Your task to perform on an android device: Set the phone to "Do not disturb". Image 0: 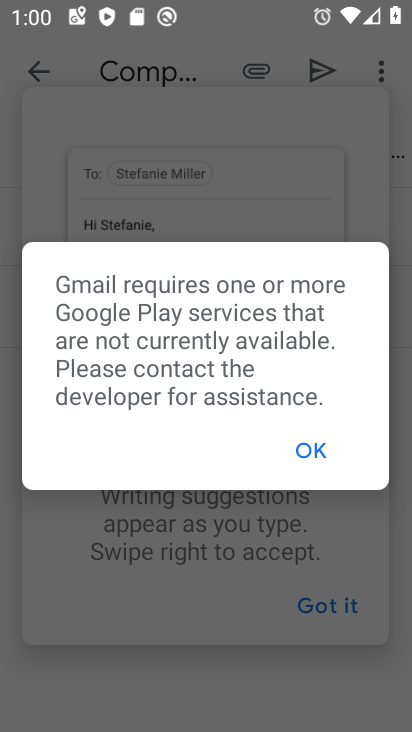
Step 0: press home button
Your task to perform on an android device: Set the phone to "Do not disturb". Image 1: 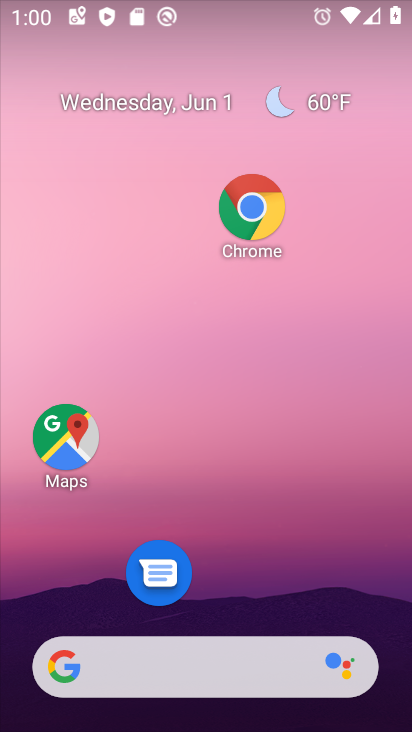
Step 1: drag from (217, 601) to (172, 153)
Your task to perform on an android device: Set the phone to "Do not disturb". Image 2: 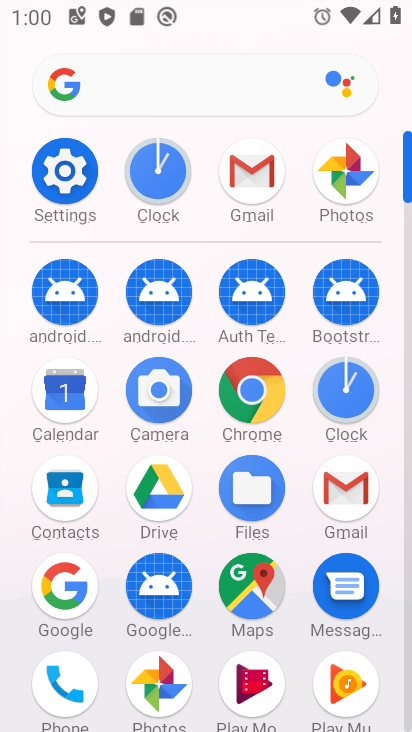
Step 2: click (83, 175)
Your task to perform on an android device: Set the phone to "Do not disturb". Image 3: 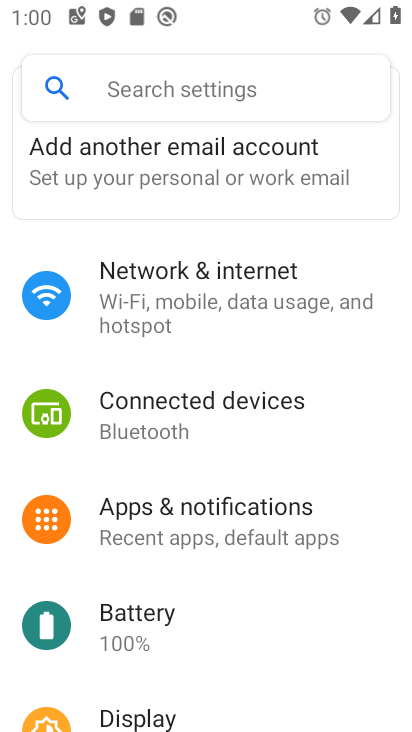
Step 3: drag from (198, 597) to (234, 247)
Your task to perform on an android device: Set the phone to "Do not disturb". Image 4: 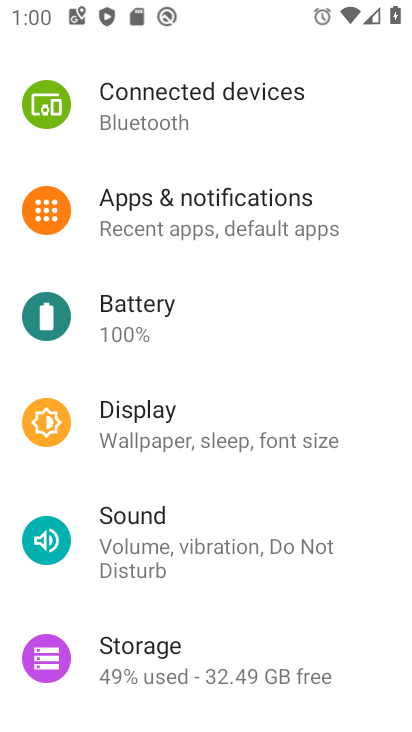
Step 4: click (207, 514)
Your task to perform on an android device: Set the phone to "Do not disturb". Image 5: 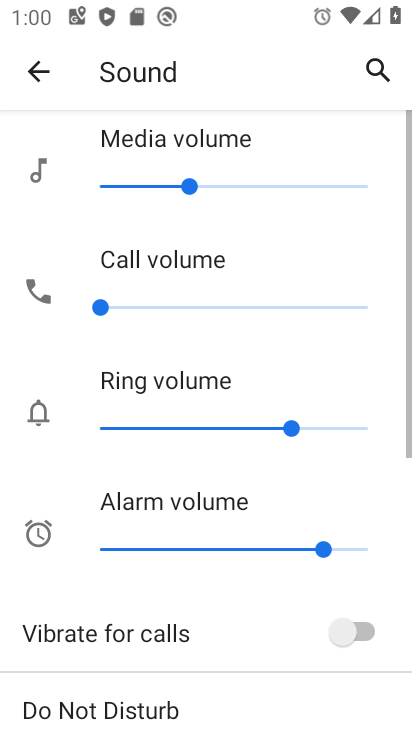
Step 5: drag from (222, 610) to (211, 221)
Your task to perform on an android device: Set the phone to "Do not disturb". Image 6: 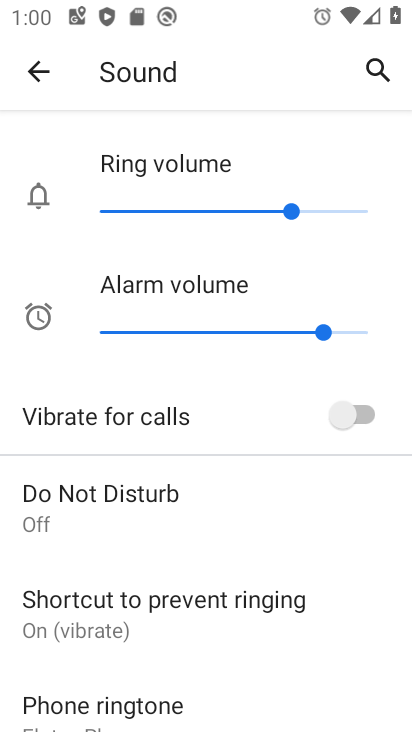
Step 6: click (159, 467)
Your task to perform on an android device: Set the phone to "Do not disturb". Image 7: 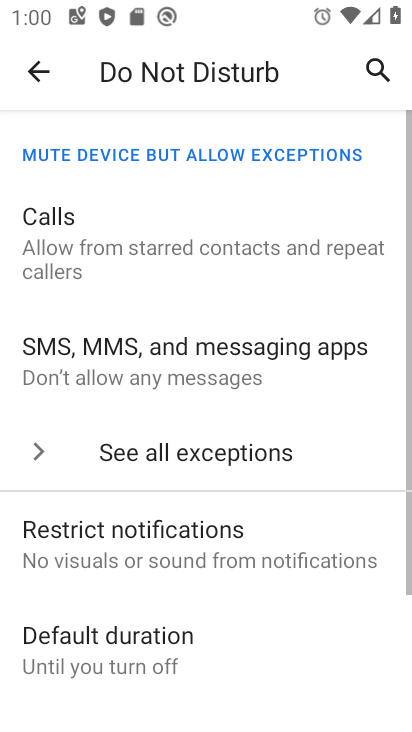
Step 7: drag from (194, 619) to (187, 168)
Your task to perform on an android device: Set the phone to "Do not disturb". Image 8: 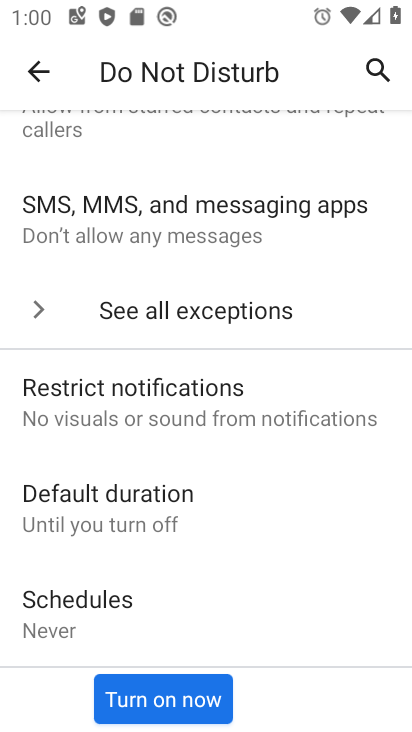
Step 8: click (183, 679)
Your task to perform on an android device: Set the phone to "Do not disturb". Image 9: 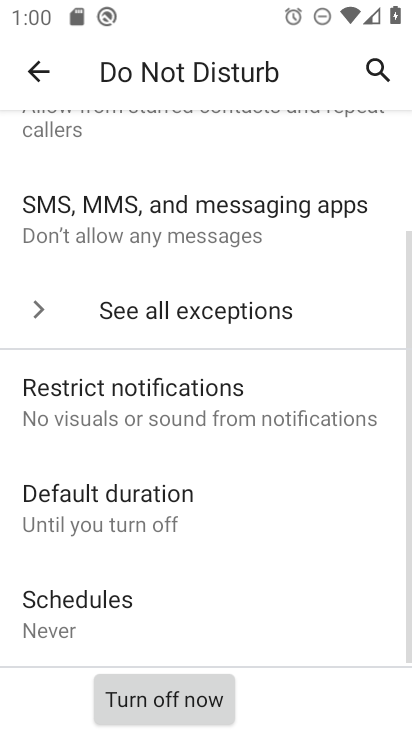
Step 9: task complete